Your task to perform on an android device: Search for vegetarian restaurants on Maps Image 0: 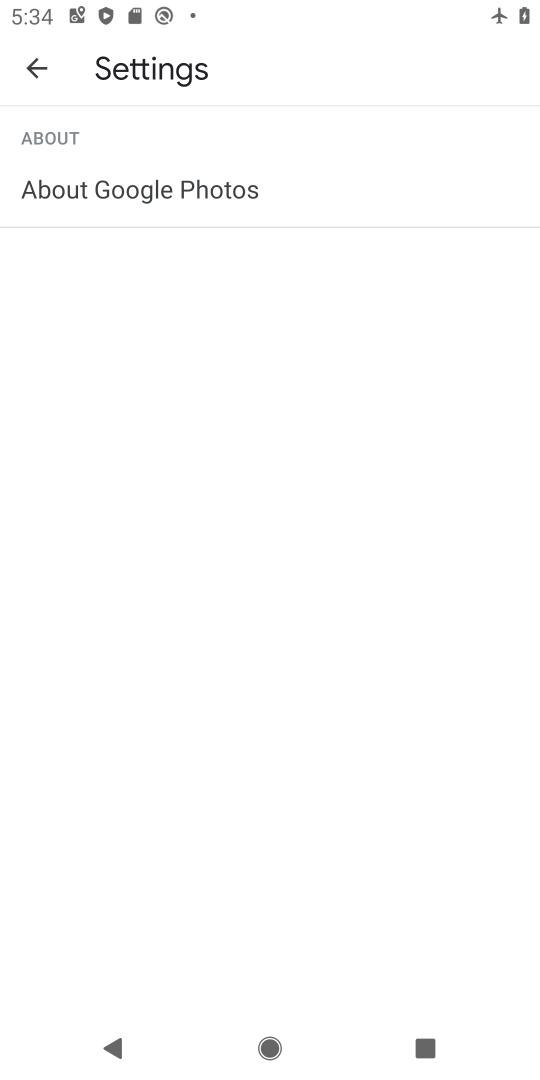
Step 0: press home button
Your task to perform on an android device: Search for vegetarian restaurants on Maps Image 1: 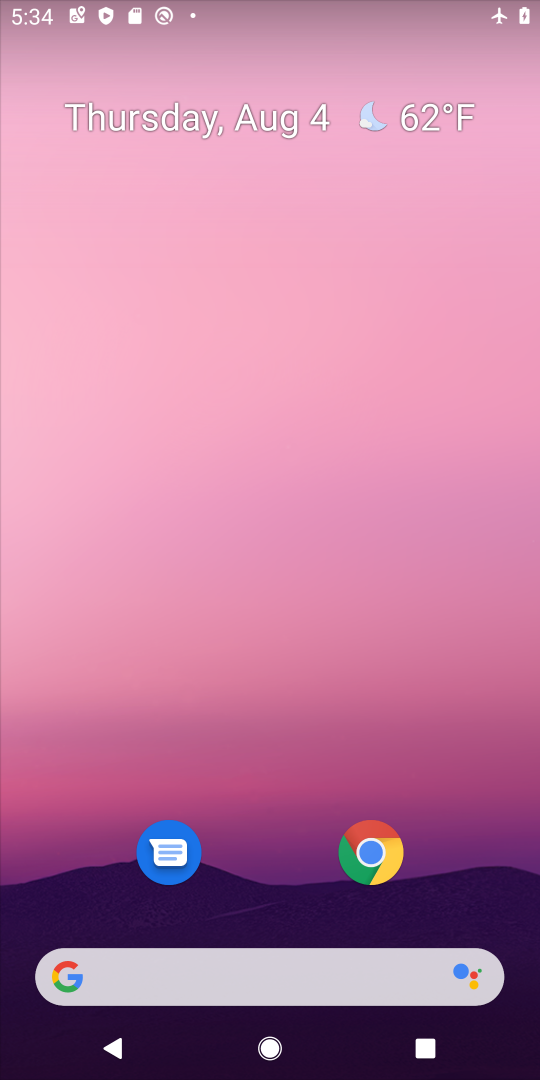
Step 1: drag from (267, 929) to (268, 280)
Your task to perform on an android device: Search for vegetarian restaurants on Maps Image 2: 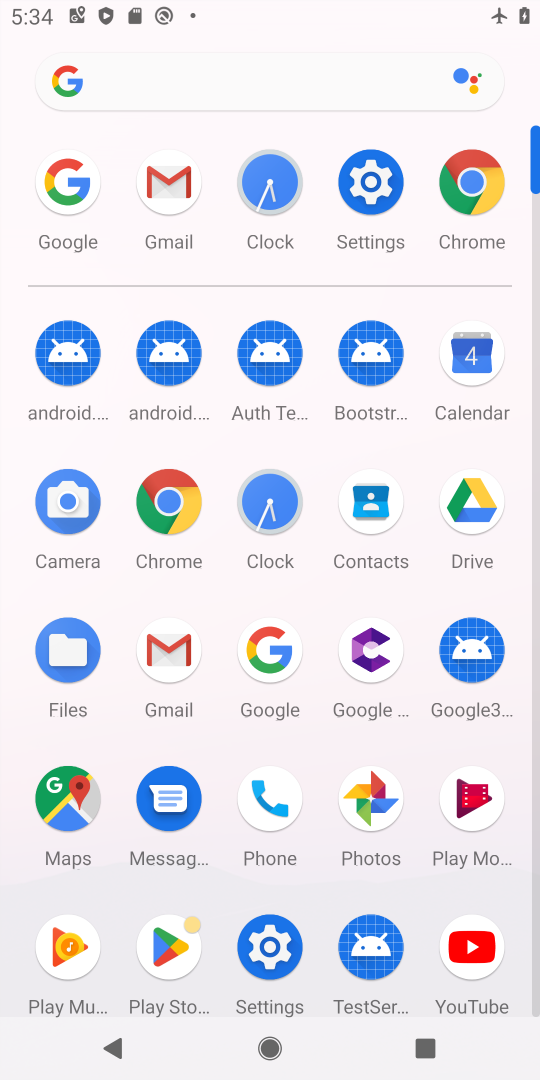
Step 2: click (68, 796)
Your task to perform on an android device: Search for vegetarian restaurants on Maps Image 3: 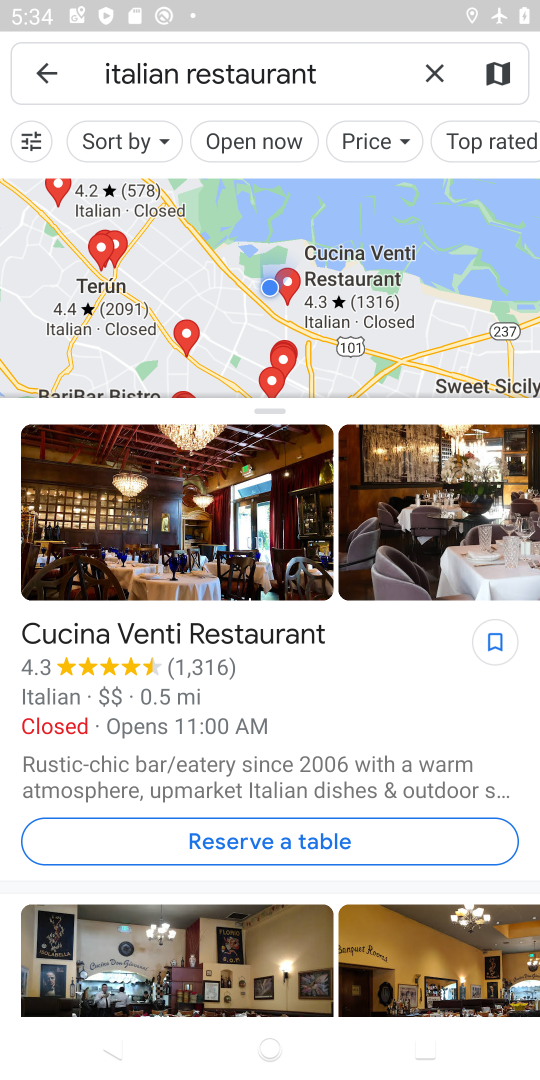
Step 3: click (440, 68)
Your task to perform on an android device: Search for vegetarian restaurants on Maps Image 4: 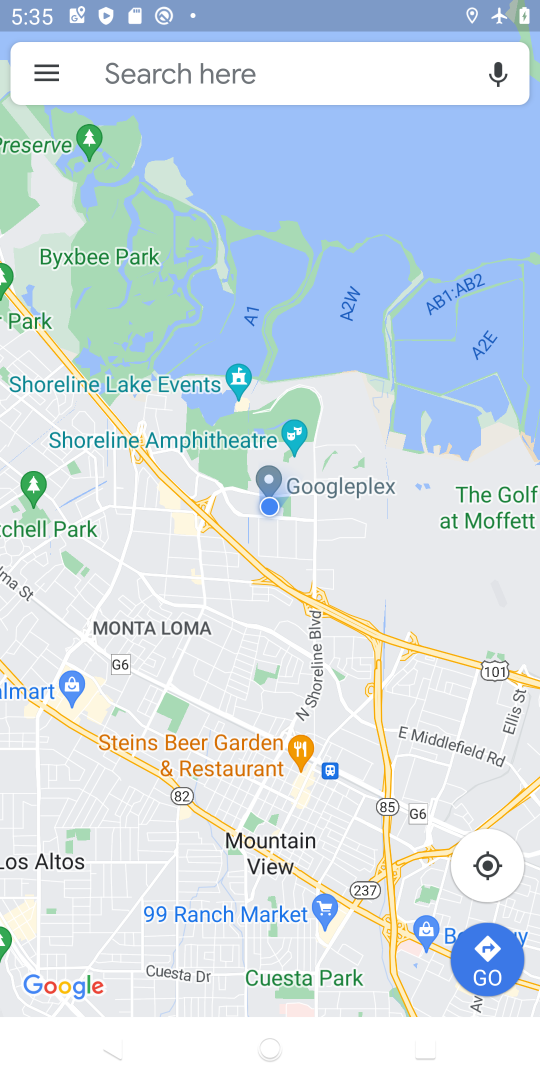
Step 4: click (257, 69)
Your task to perform on an android device: Search for vegetarian restaurants on Maps Image 5: 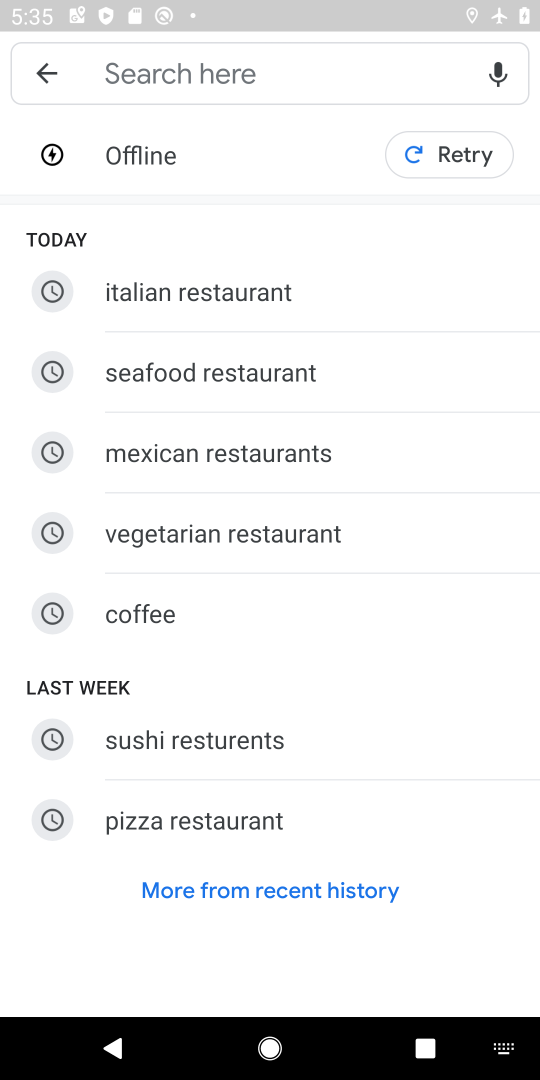
Step 5: type "egetarian restaurants"
Your task to perform on an android device: Search for vegetarian restaurants on Maps Image 6: 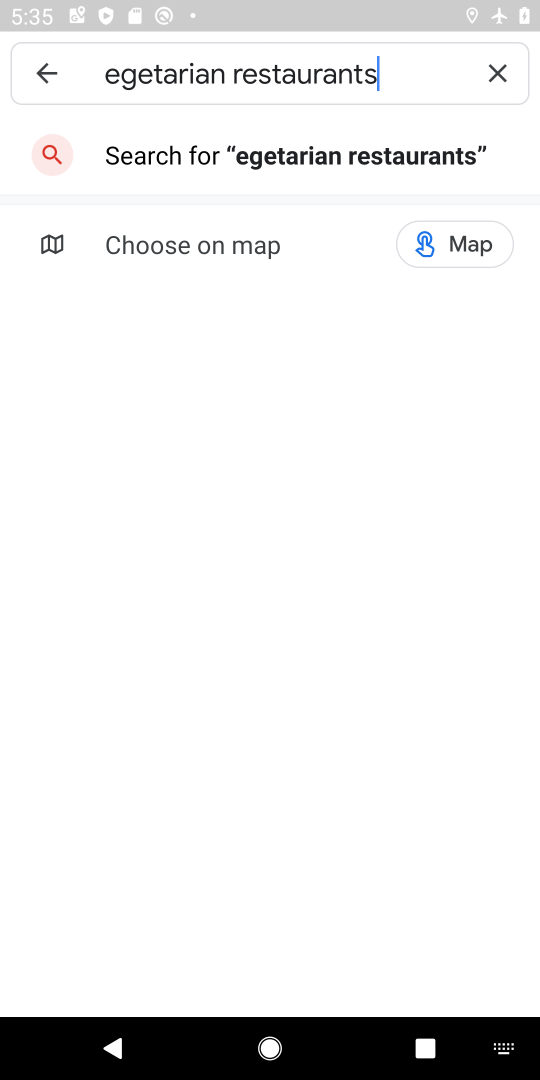
Step 6: click (335, 155)
Your task to perform on an android device: Search for vegetarian restaurants on Maps Image 7: 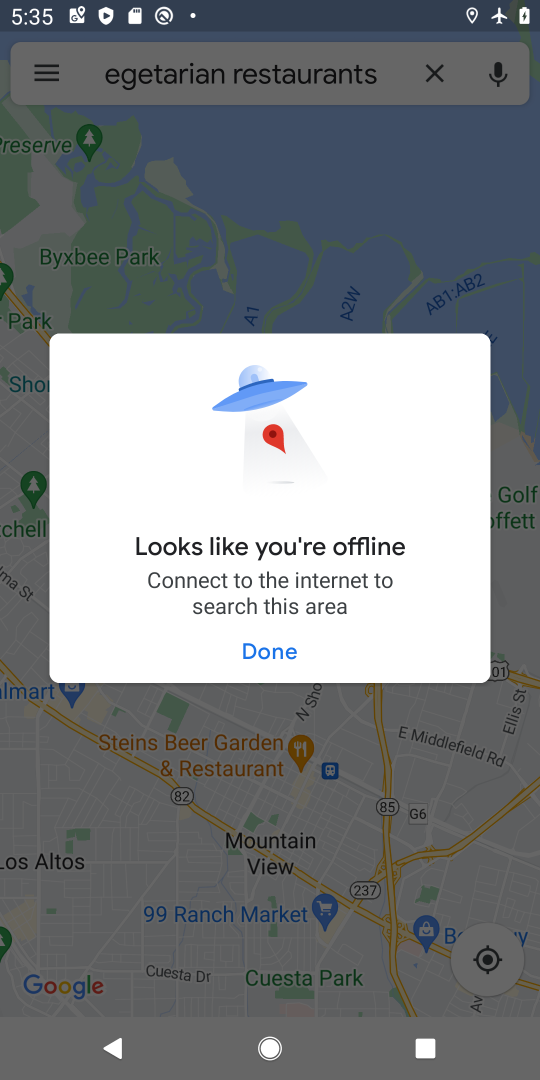
Step 7: task complete